Your task to perform on an android device: find snoozed emails in the gmail app Image 0: 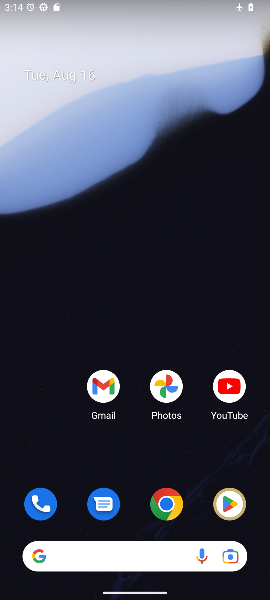
Step 0: click (103, 387)
Your task to perform on an android device: find snoozed emails in the gmail app Image 1: 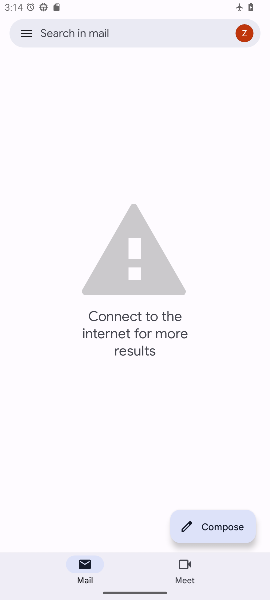
Step 1: click (25, 30)
Your task to perform on an android device: find snoozed emails in the gmail app Image 2: 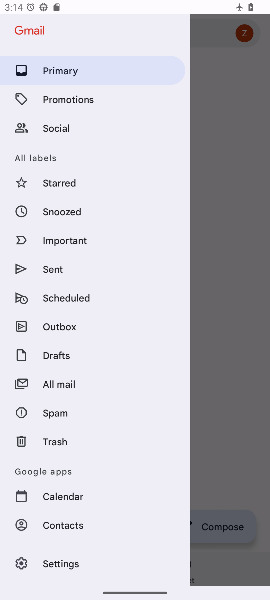
Step 2: click (64, 210)
Your task to perform on an android device: find snoozed emails in the gmail app Image 3: 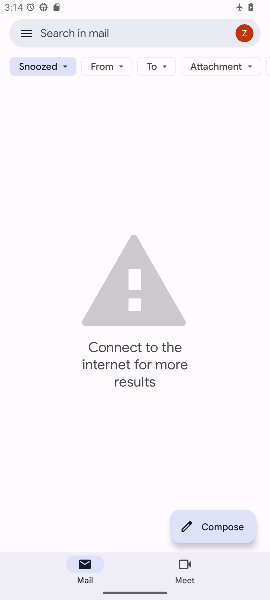
Step 3: task complete